Your task to perform on an android device: Open network settings Image 0: 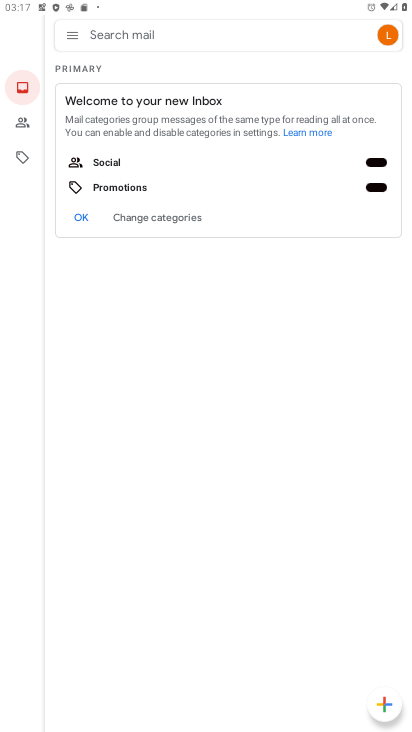
Step 0: press home button
Your task to perform on an android device: Open network settings Image 1: 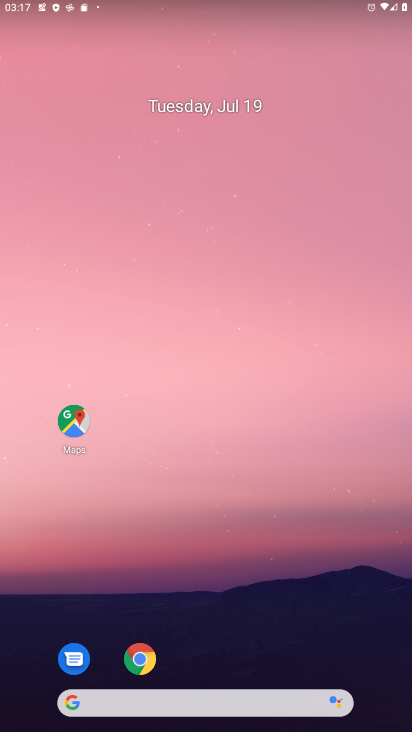
Step 1: drag from (336, 647) to (296, 215)
Your task to perform on an android device: Open network settings Image 2: 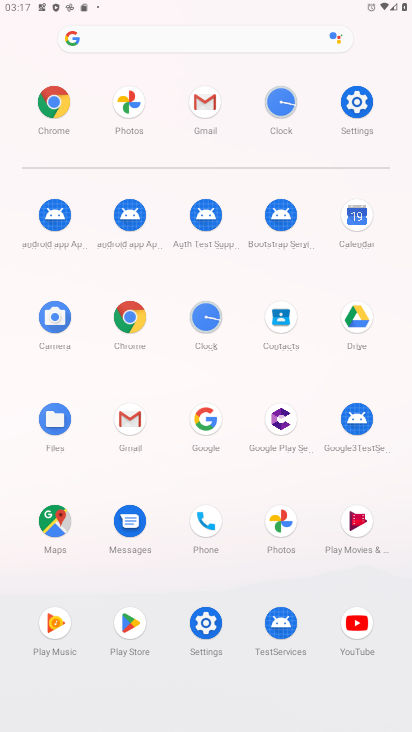
Step 2: click (355, 126)
Your task to perform on an android device: Open network settings Image 3: 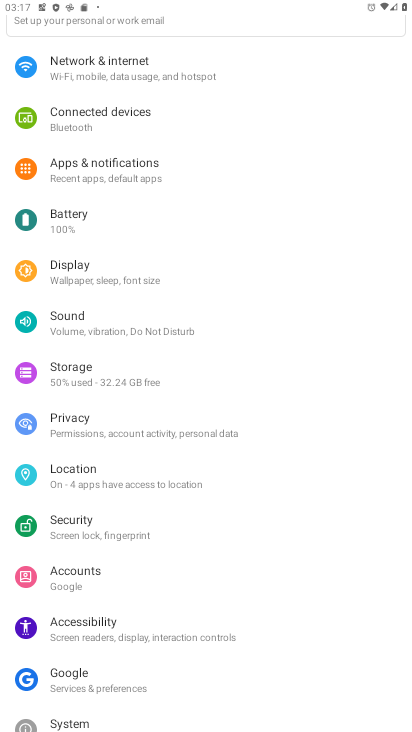
Step 3: click (130, 69)
Your task to perform on an android device: Open network settings Image 4: 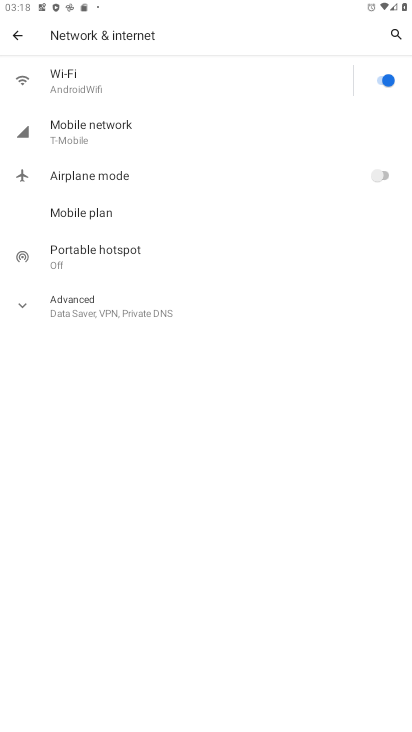
Step 4: task complete